Your task to perform on an android device: Open the map Image 0: 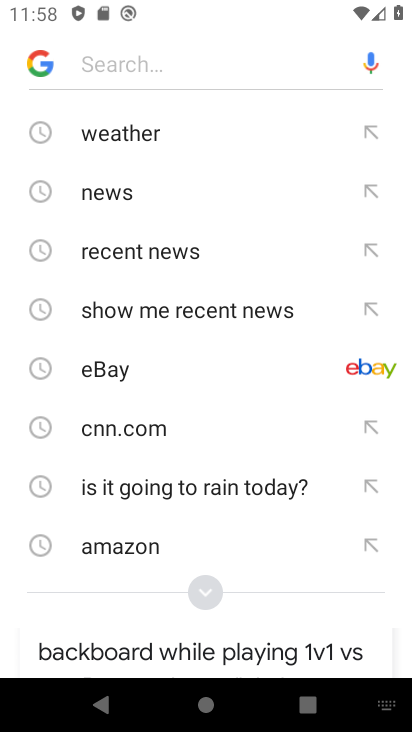
Step 0: press home button
Your task to perform on an android device: Open the map Image 1: 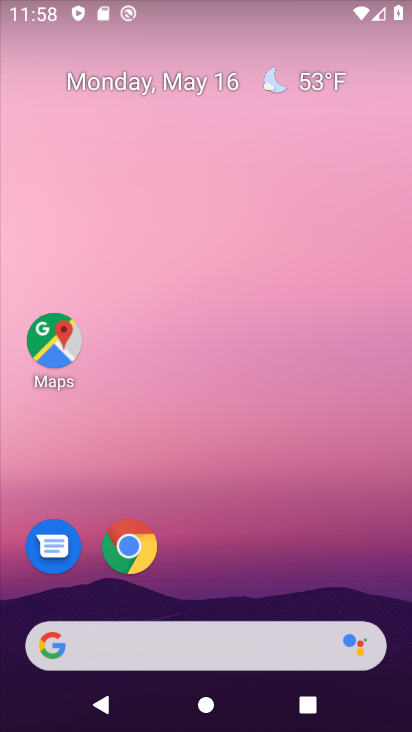
Step 1: click (41, 344)
Your task to perform on an android device: Open the map Image 2: 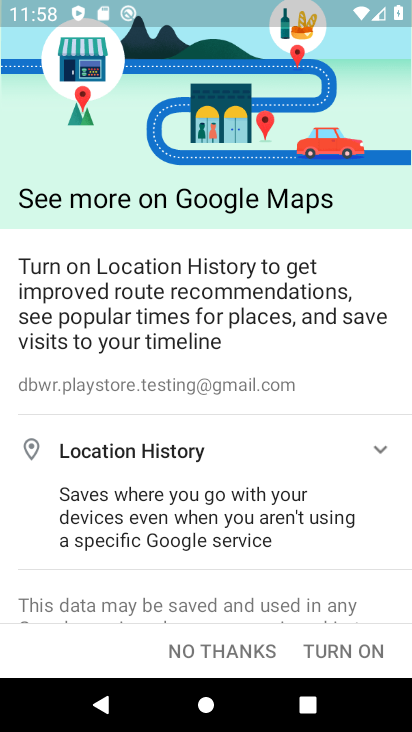
Step 2: click (255, 644)
Your task to perform on an android device: Open the map Image 3: 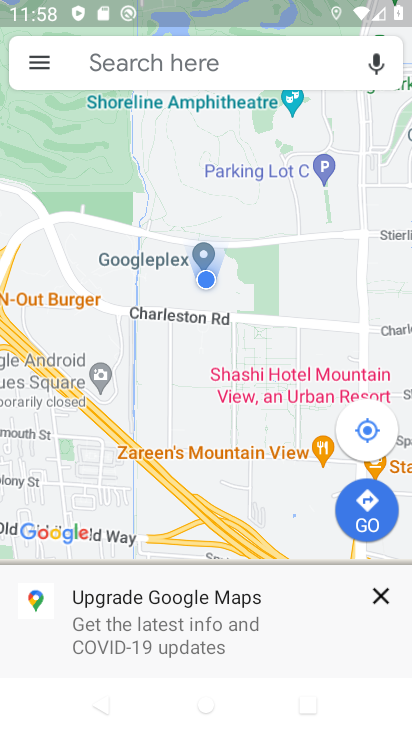
Step 3: task complete